Your task to perform on an android device: turn on data saver in the chrome app Image 0: 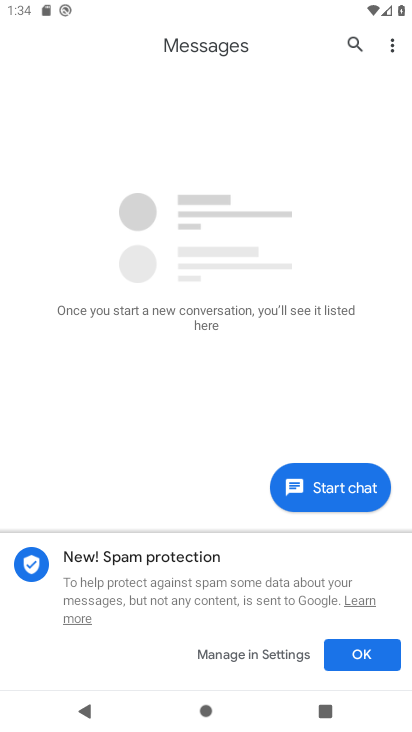
Step 0: press back button
Your task to perform on an android device: turn on data saver in the chrome app Image 1: 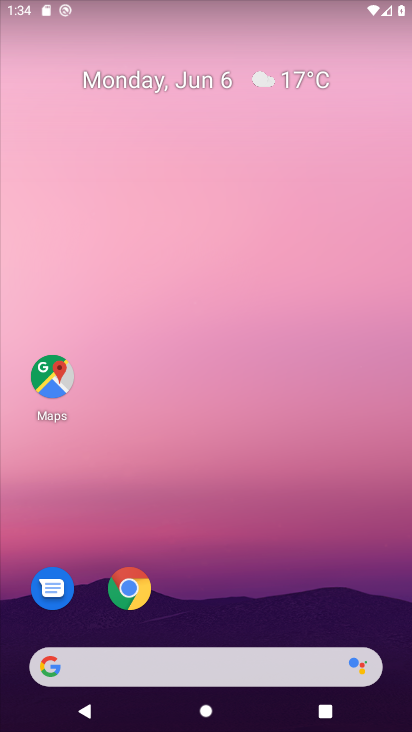
Step 1: click (121, 576)
Your task to perform on an android device: turn on data saver in the chrome app Image 2: 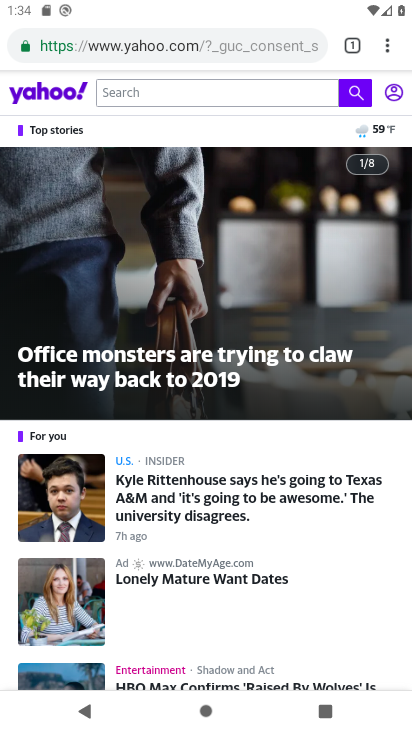
Step 2: click (388, 53)
Your task to perform on an android device: turn on data saver in the chrome app Image 3: 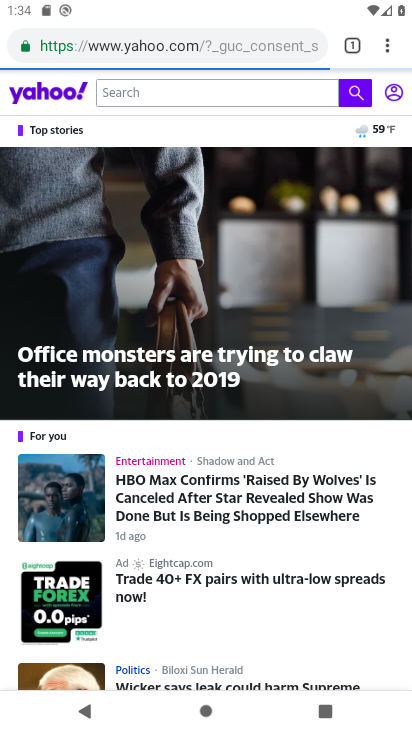
Step 3: click (387, 48)
Your task to perform on an android device: turn on data saver in the chrome app Image 4: 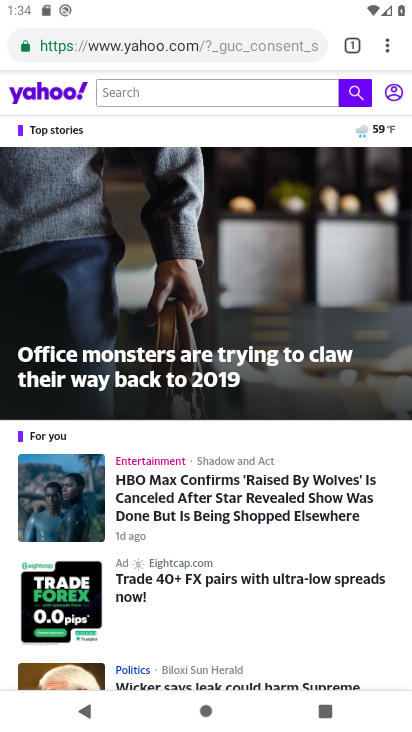
Step 4: click (386, 48)
Your task to perform on an android device: turn on data saver in the chrome app Image 5: 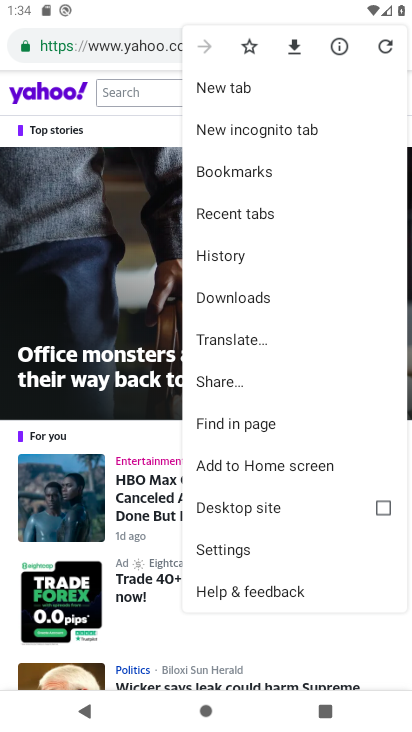
Step 5: click (253, 550)
Your task to perform on an android device: turn on data saver in the chrome app Image 6: 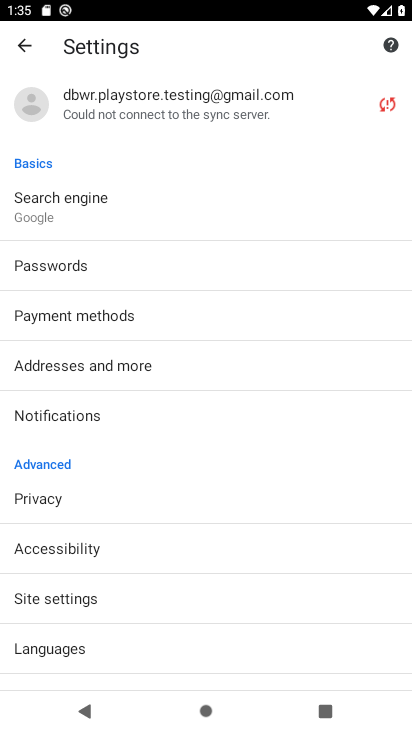
Step 6: drag from (66, 601) to (69, 439)
Your task to perform on an android device: turn on data saver in the chrome app Image 7: 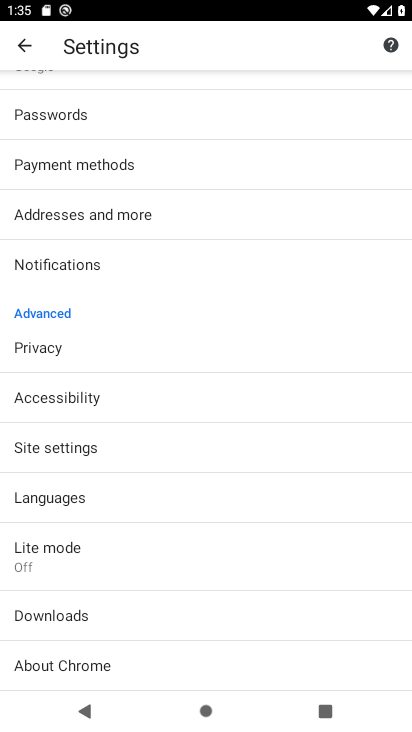
Step 7: click (53, 562)
Your task to perform on an android device: turn on data saver in the chrome app Image 8: 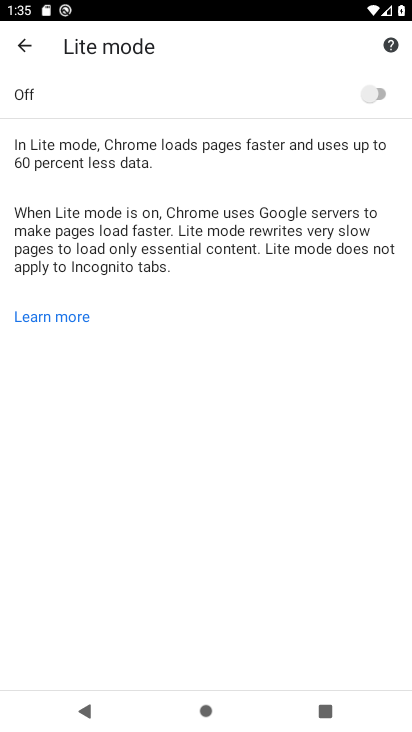
Step 8: click (379, 101)
Your task to perform on an android device: turn on data saver in the chrome app Image 9: 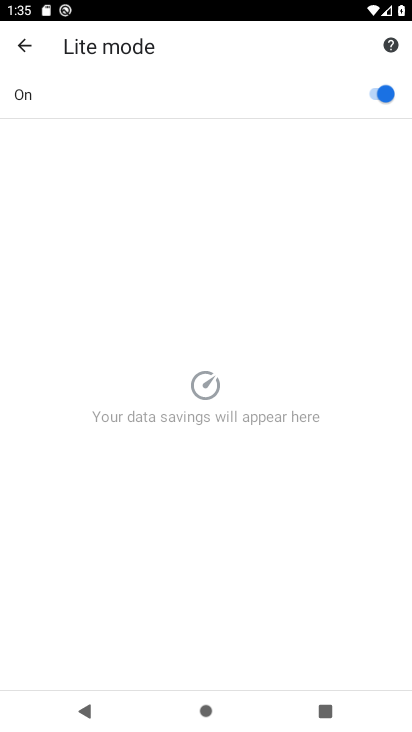
Step 9: task complete